Your task to perform on an android device: Do I have any events tomorrow? Image 0: 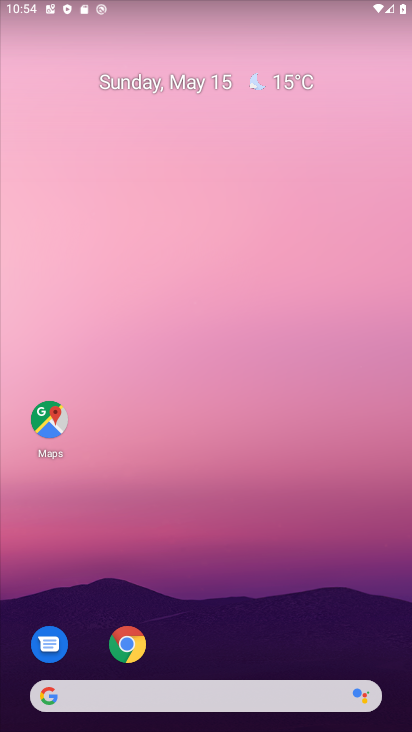
Step 0: click (166, 83)
Your task to perform on an android device: Do I have any events tomorrow? Image 1: 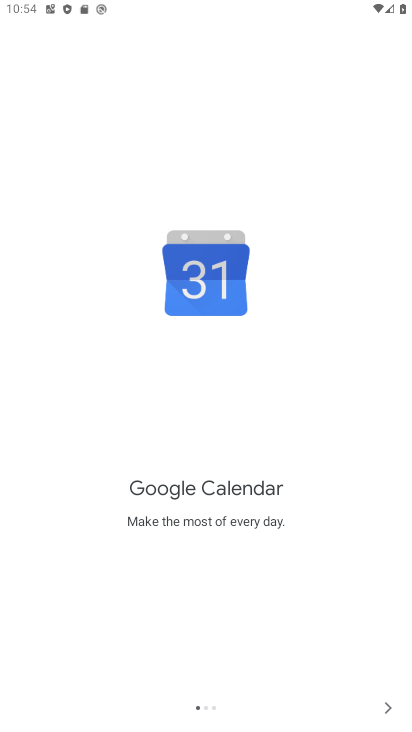
Step 1: click (380, 699)
Your task to perform on an android device: Do I have any events tomorrow? Image 2: 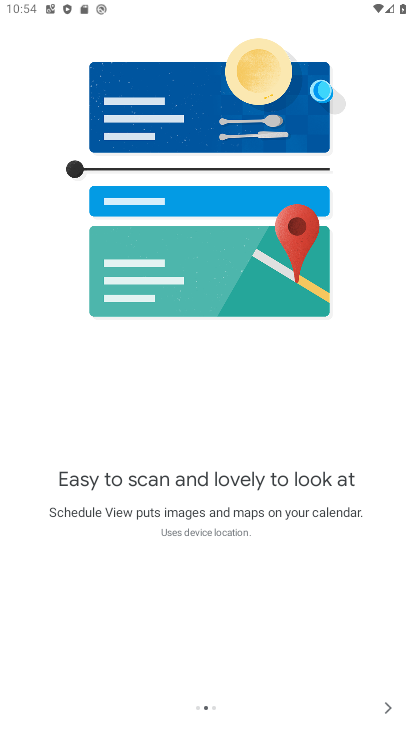
Step 2: click (383, 711)
Your task to perform on an android device: Do I have any events tomorrow? Image 3: 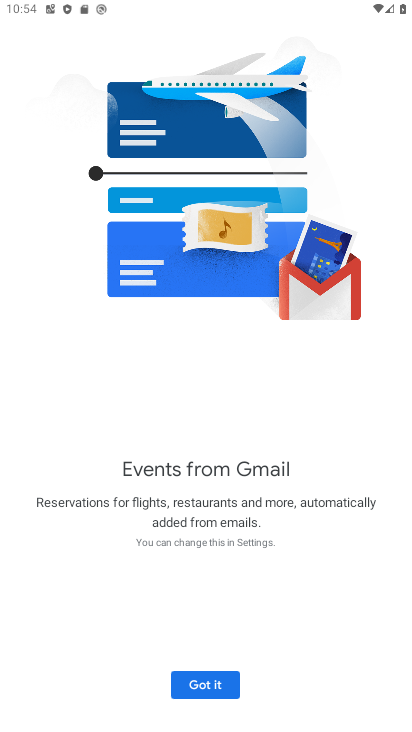
Step 3: click (211, 678)
Your task to perform on an android device: Do I have any events tomorrow? Image 4: 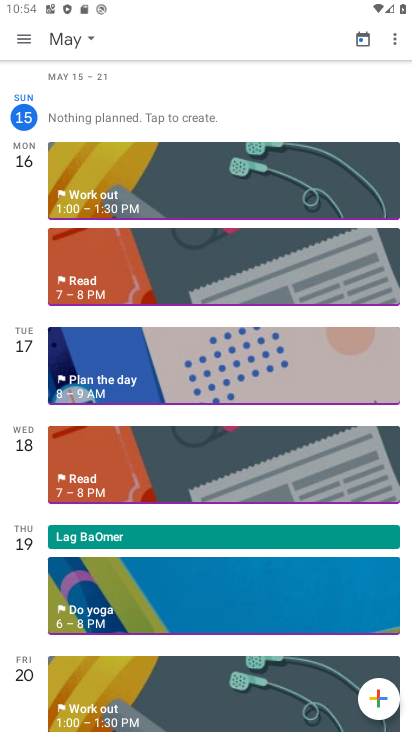
Step 4: task complete